Your task to perform on an android device: Open the map Image 0: 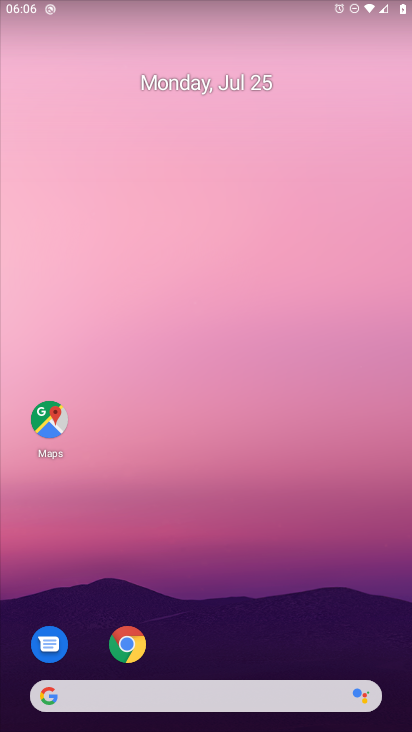
Step 0: press home button
Your task to perform on an android device: Open the map Image 1: 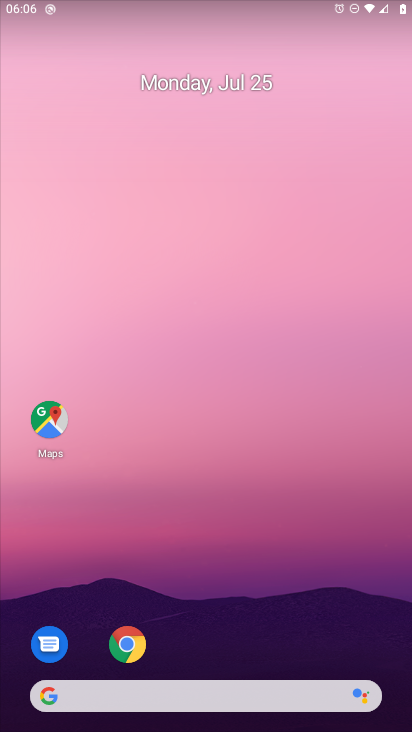
Step 1: drag from (234, 623) to (252, 196)
Your task to perform on an android device: Open the map Image 2: 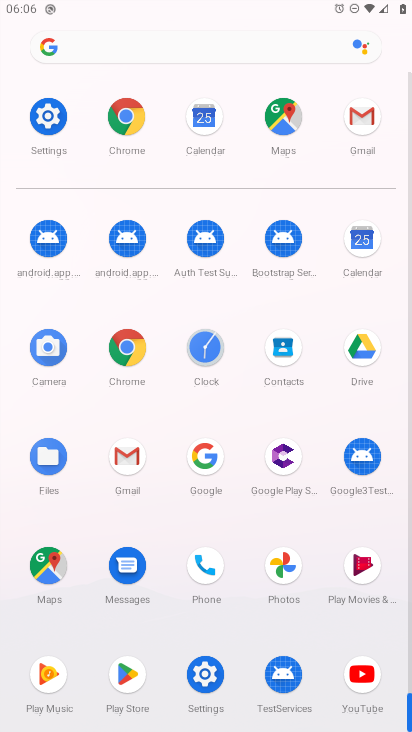
Step 2: click (288, 130)
Your task to perform on an android device: Open the map Image 3: 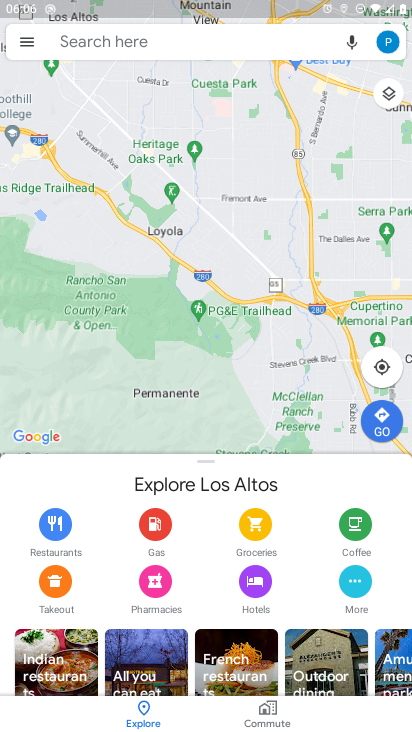
Step 3: task complete